Your task to perform on an android device: empty trash in the gmail app Image 0: 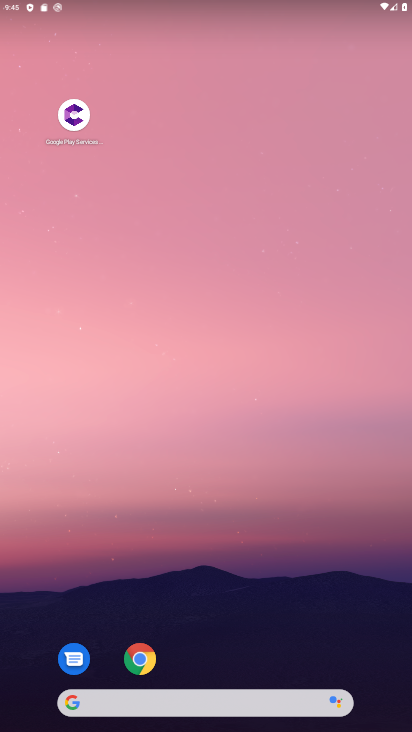
Step 0: drag from (372, 693) to (263, 42)
Your task to perform on an android device: empty trash in the gmail app Image 1: 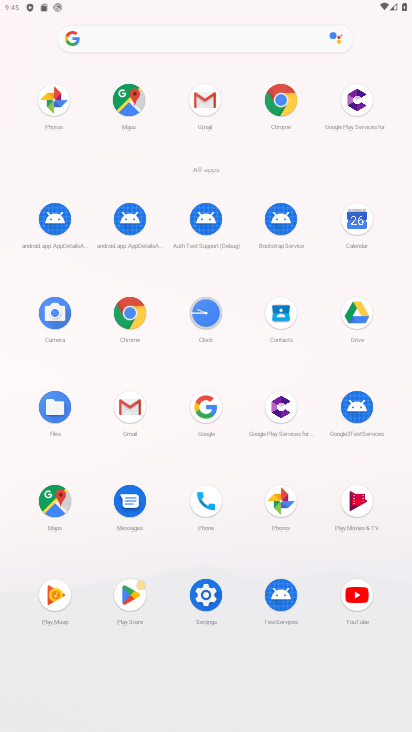
Step 1: click (136, 408)
Your task to perform on an android device: empty trash in the gmail app Image 2: 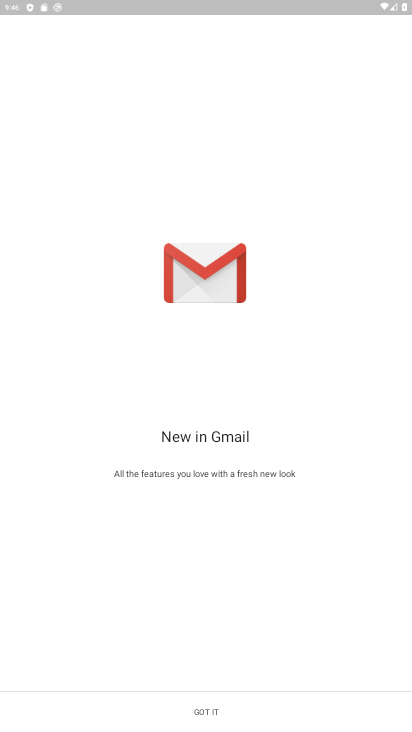
Step 2: click (210, 708)
Your task to perform on an android device: empty trash in the gmail app Image 3: 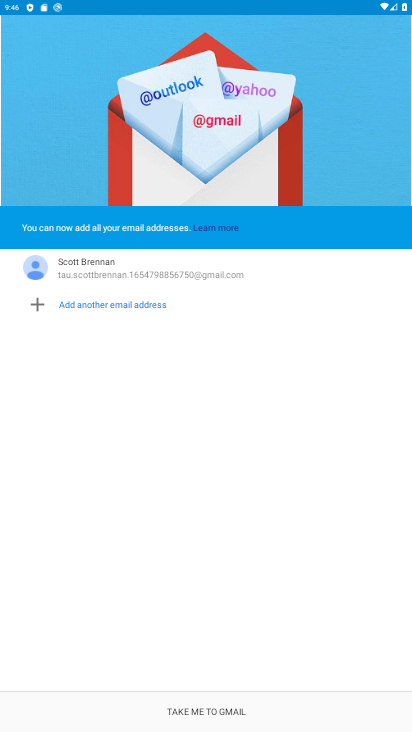
Step 3: click (211, 703)
Your task to perform on an android device: empty trash in the gmail app Image 4: 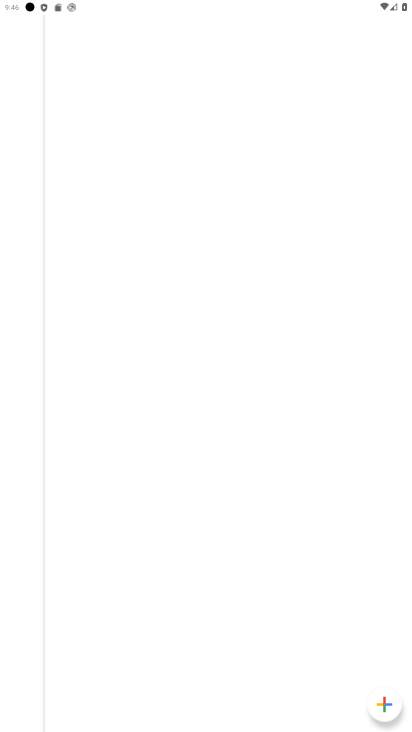
Step 4: click (211, 703)
Your task to perform on an android device: empty trash in the gmail app Image 5: 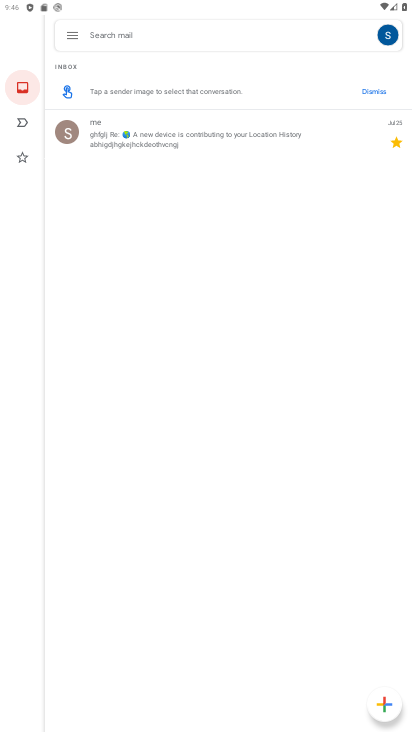
Step 5: click (71, 29)
Your task to perform on an android device: empty trash in the gmail app Image 6: 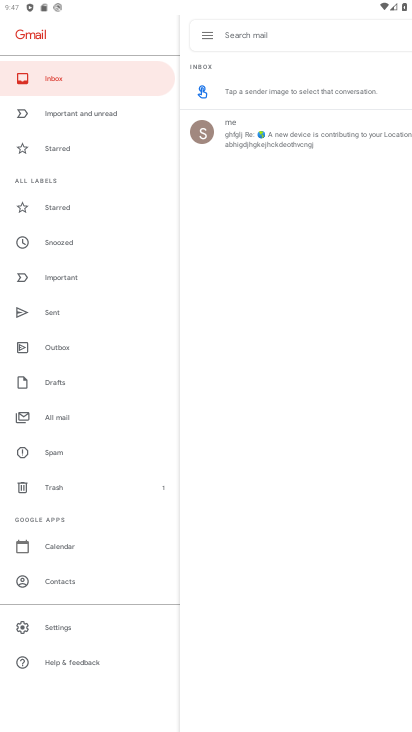
Step 6: click (43, 479)
Your task to perform on an android device: empty trash in the gmail app Image 7: 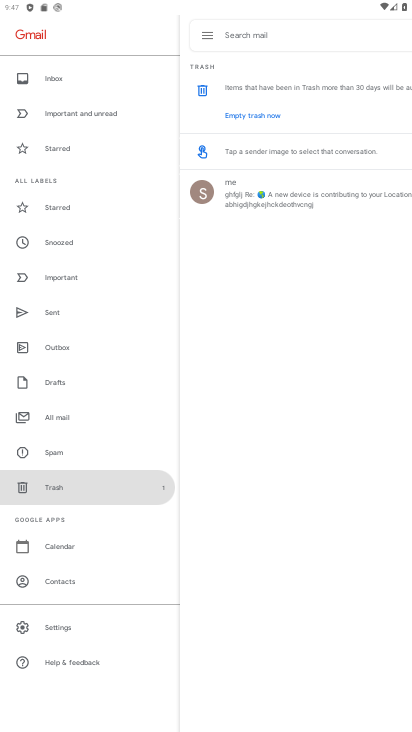
Step 7: click (265, 107)
Your task to perform on an android device: empty trash in the gmail app Image 8: 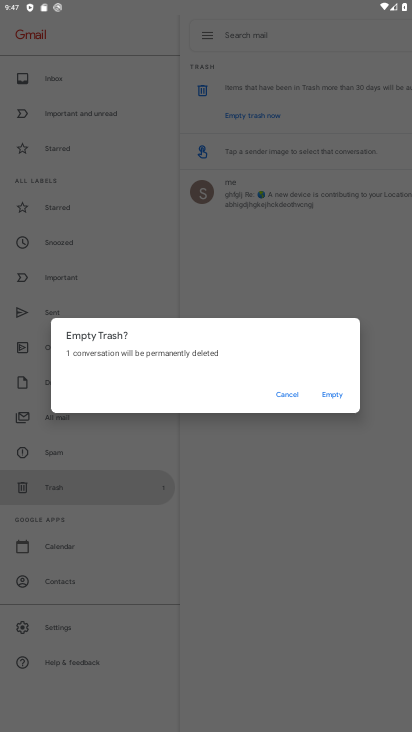
Step 8: click (324, 392)
Your task to perform on an android device: empty trash in the gmail app Image 9: 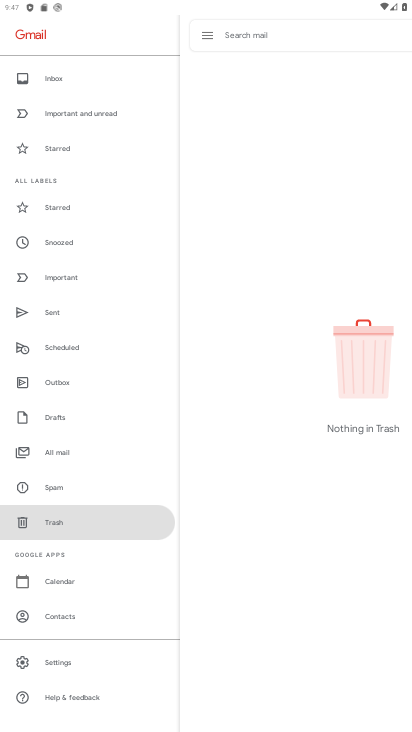
Step 9: task complete